Your task to perform on an android device: Show me recent news Image 0: 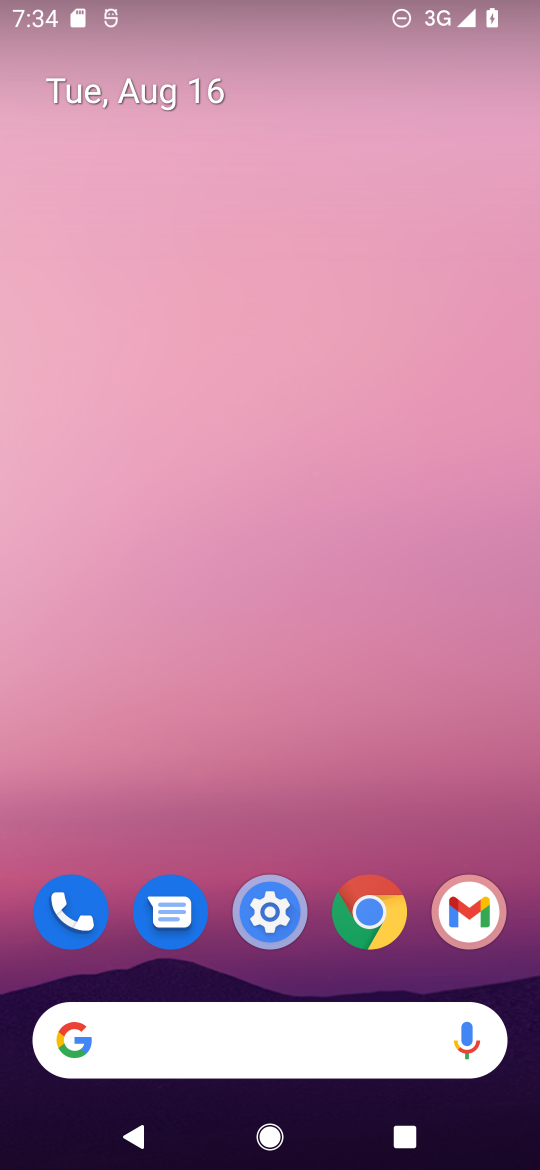
Step 0: drag from (14, 572) to (528, 582)
Your task to perform on an android device: Show me recent news Image 1: 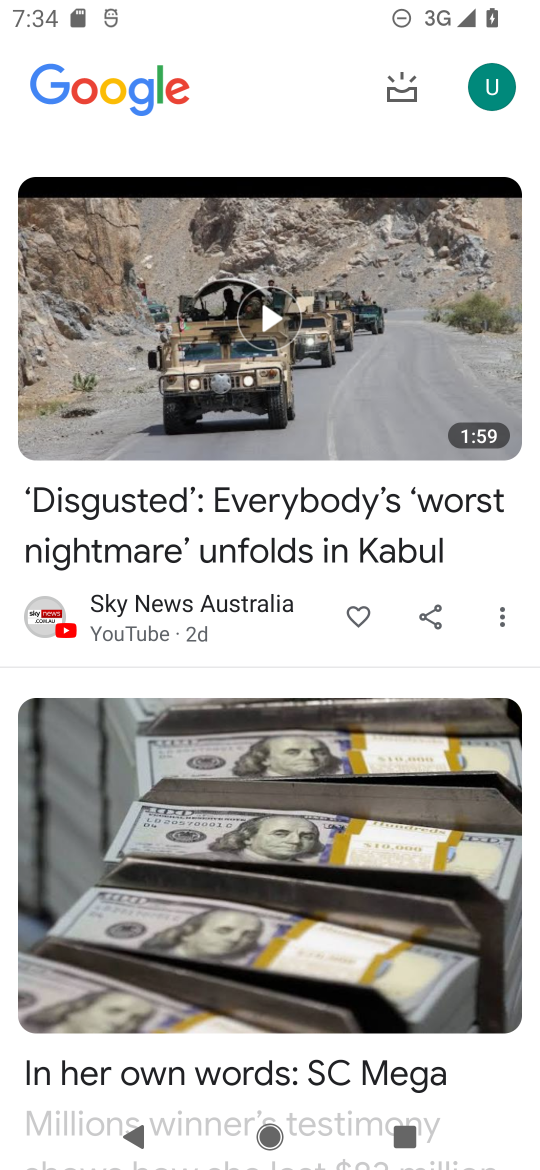
Step 1: task complete